Your task to perform on an android device: find which apps use the phone's location Image 0: 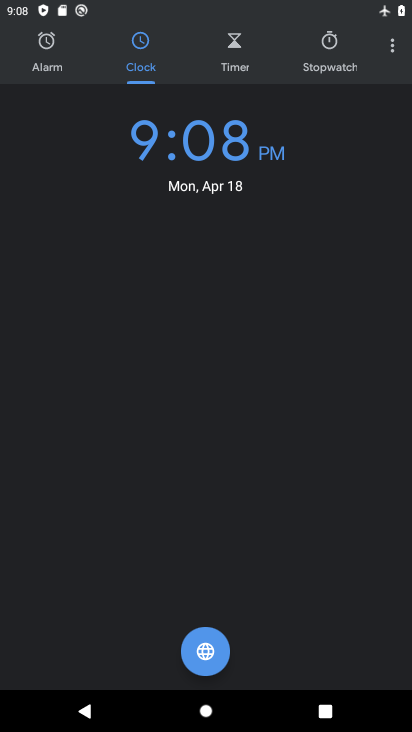
Step 0: press home button
Your task to perform on an android device: find which apps use the phone's location Image 1: 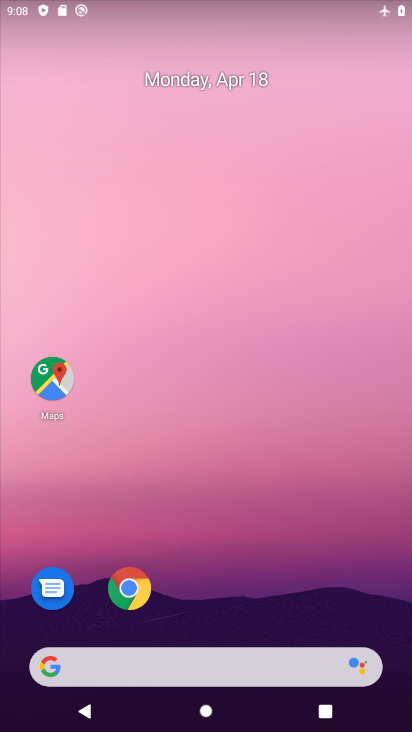
Step 1: drag from (241, 609) to (274, 41)
Your task to perform on an android device: find which apps use the phone's location Image 2: 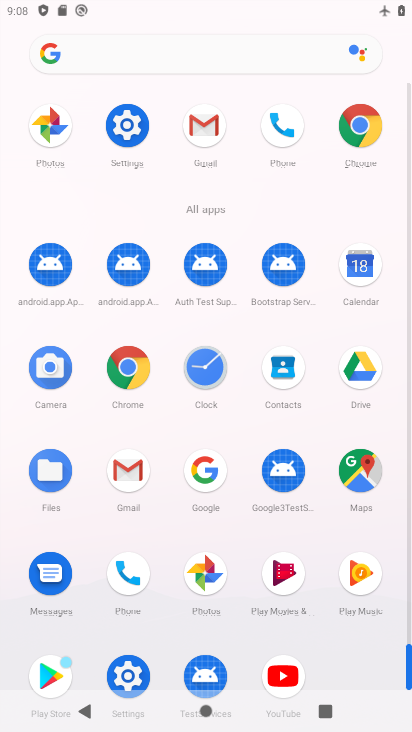
Step 2: click (129, 577)
Your task to perform on an android device: find which apps use the phone's location Image 3: 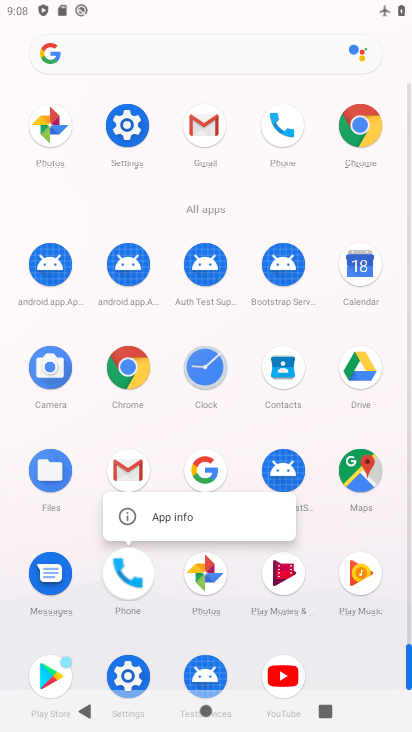
Step 3: click (146, 516)
Your task to perform on an android device: find which apps use the phone's location Image 4: 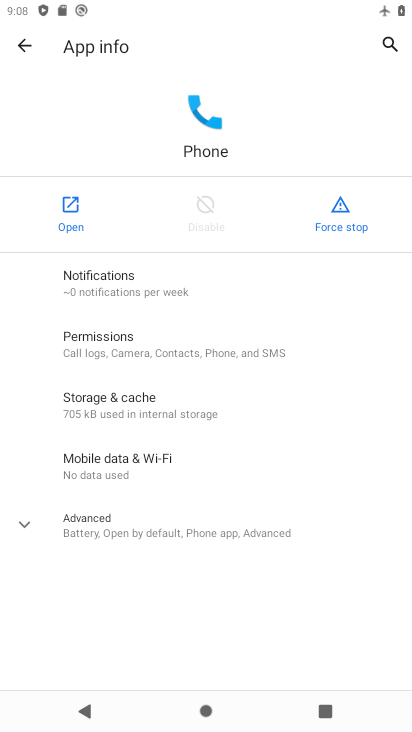
Step 4: drag from (291, 513) to (295, 301)
Your task to perform on an android device: find which apps use the phone's location Image 5: 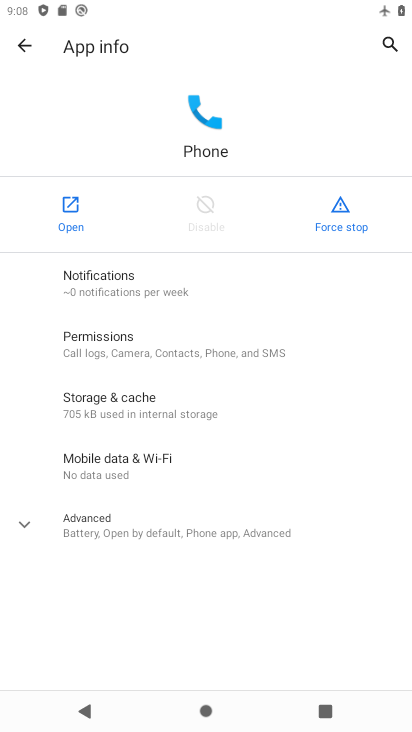
Step 5: click (119, 343)
Your task to perform on an android device: find which apps use the phone's location Image 6: 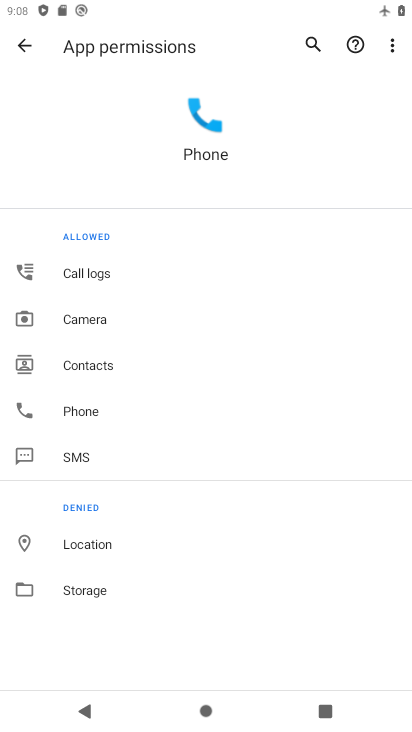
Step 6: click (84, 534)
Your task to perform on an android device: find which apps use the phone's location Image 7: 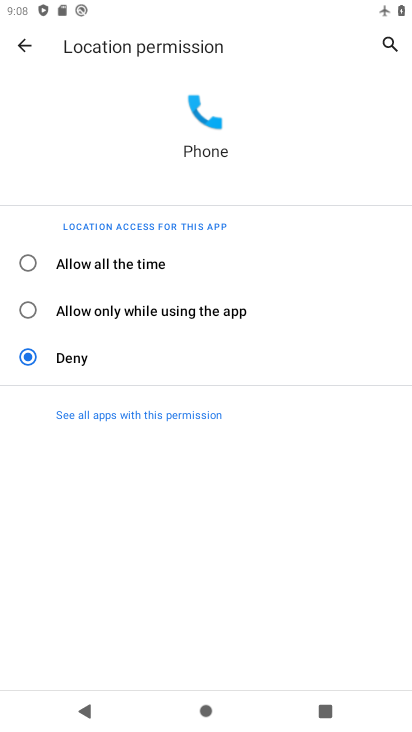
Step 7: click (99, 418)
Your task to perform on an android device: find which apps use the phone's location Image 8: 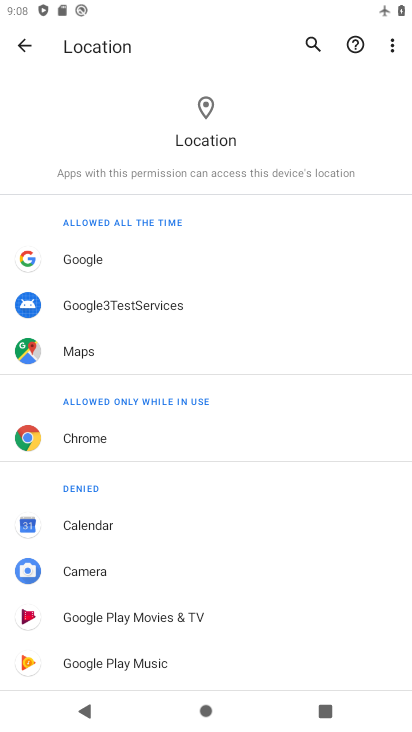
Step 8: drag from (182, 589) to (236, 245)
Your task to perform on an android device: find which apps use the phone's location Image 9: 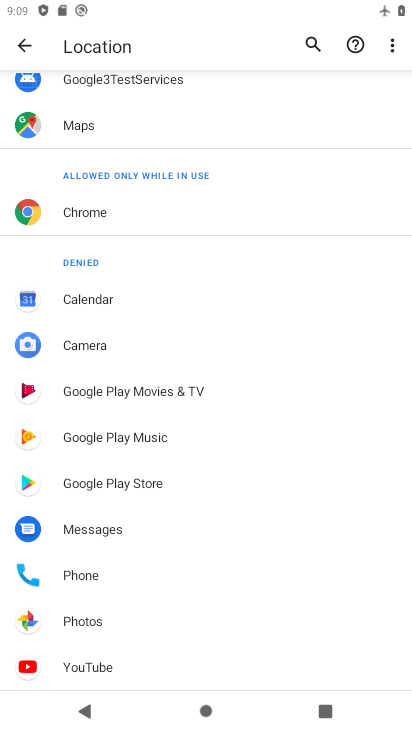
Step 9: click (72, 563)
Your task to perform on an android device: find which apps use the phone's location Image 10: 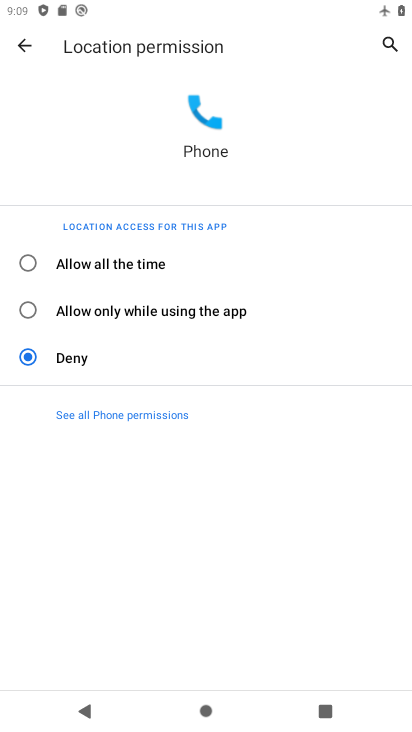
Step 10: task complete